Your task to perform on an android device: Open eBay Image 0: 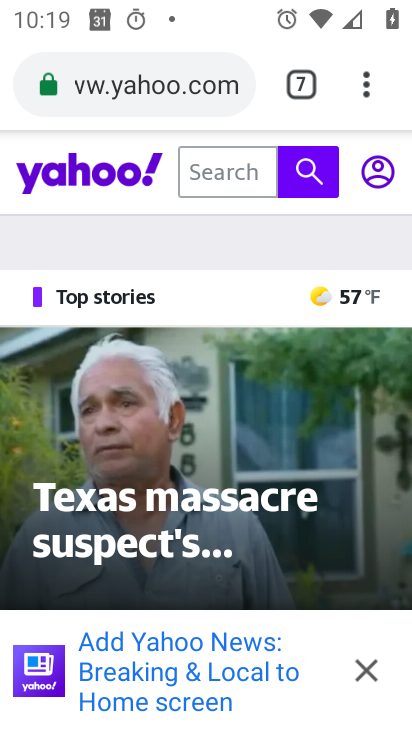
Step 0: press home button
Your task to perform on an android device: Open eBay Image 1: 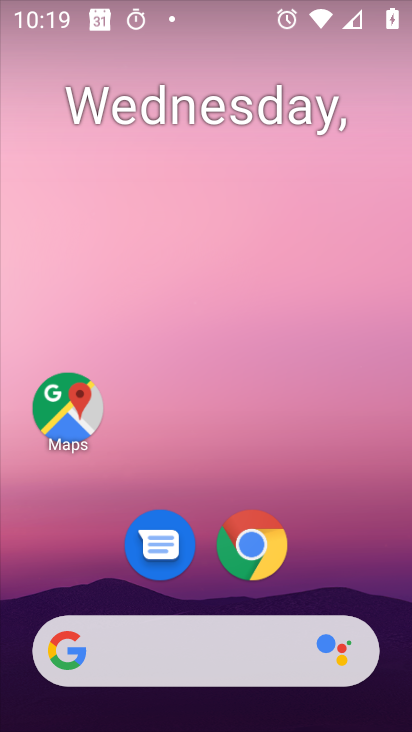
Step 1: click (269, 544)
Your task to perform on an android device: Open eBay Image 2: 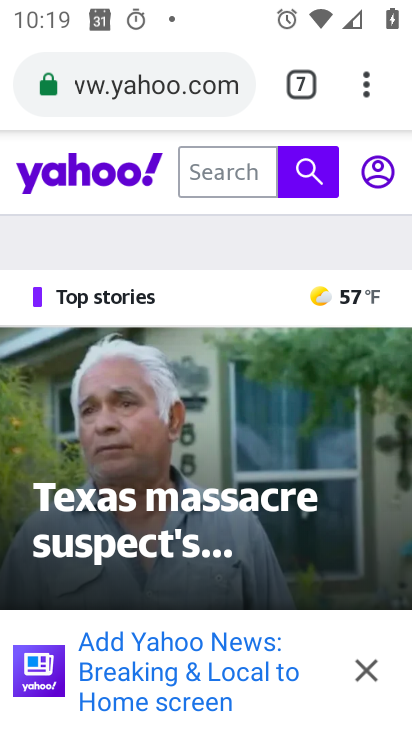
Step 2: drag from (364, 92) to (152, 173)
Your task to perform on an android device: Open eBay Image 3: 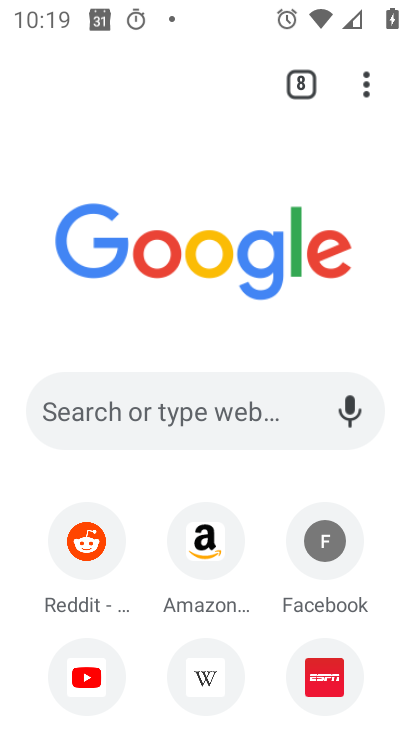
Step 3: drag from (154, 622) to (241, 346)
Your task to perform on an android device: Open eBay Image 4: 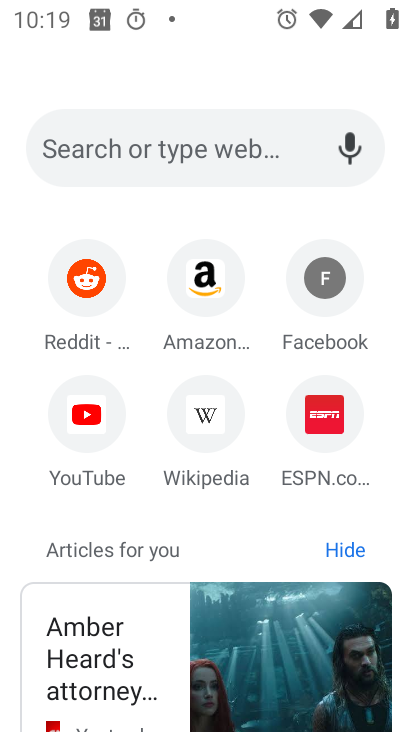
Step 4: click (157, 146)
Your task to perform on an android device: Open eBay Image 5: 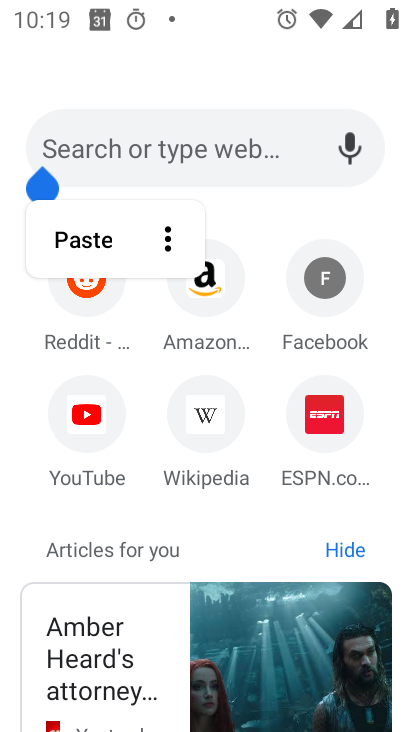
Step 5: click (166, 151)
Your task to perform on an android device: Open eBay Image 6: 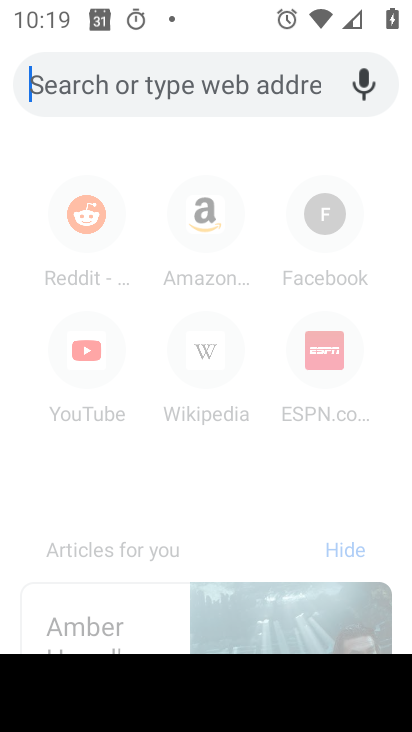
Step 6: type "ebay"
Your task to perform on an android device: Open eBay Image 7: 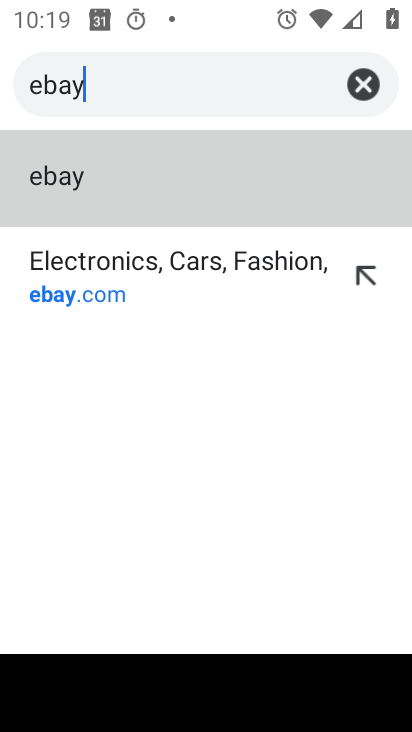
Step 7: click (125, 200)
Your task to perform on an android device: Open eBay Image 8: 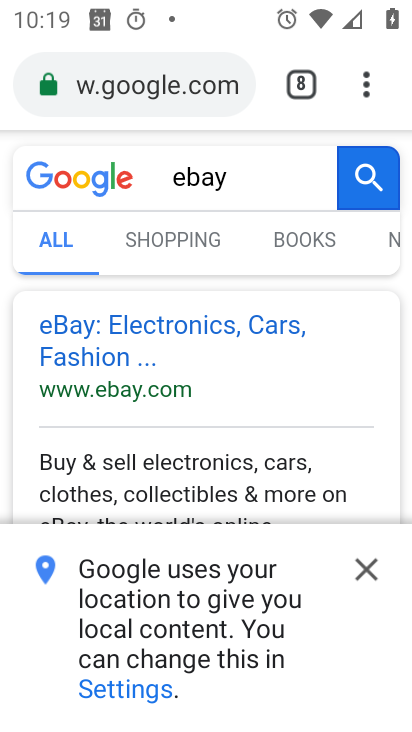
Step 8: click (368, 566)
Your task to perform on an android device: Open eBay Image 9: 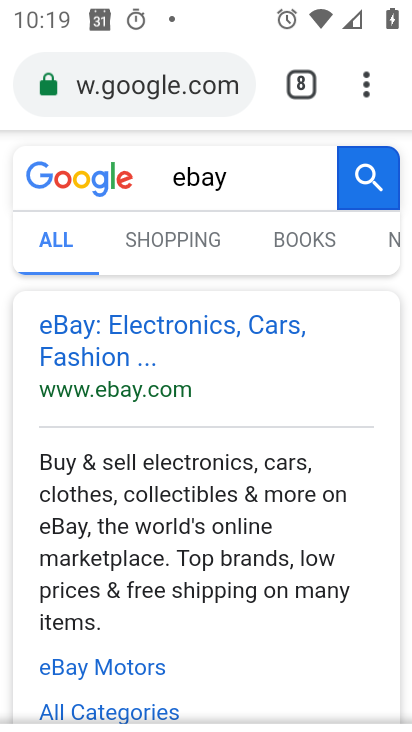
Step 9: click (142, 346)
Your task to perform on an android device: Open eBay Image 10: 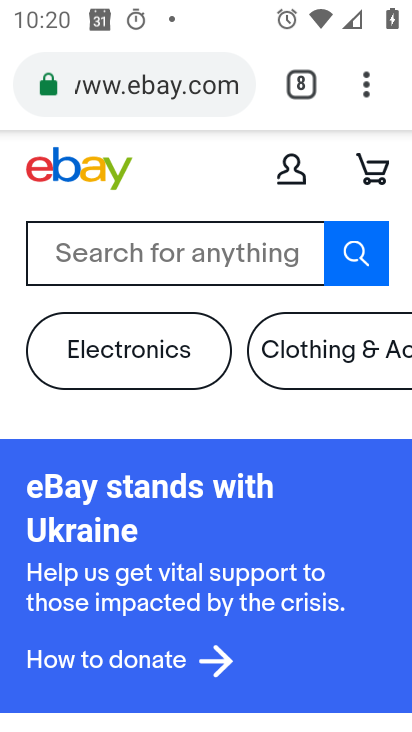
Step 10: task complete